Your task to perform on an android device: toggle javascript in the chrome app Image 0: 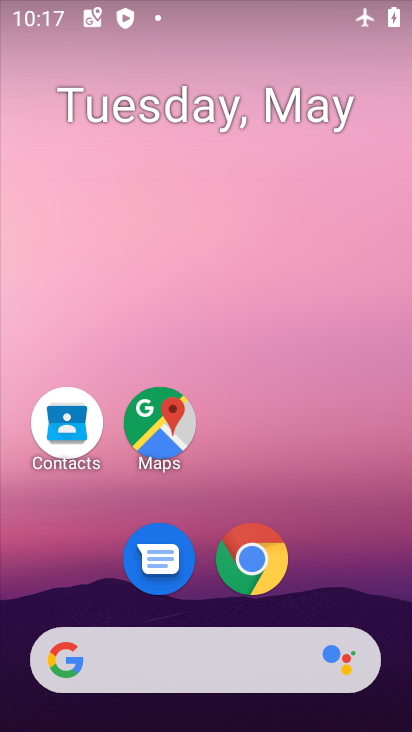
Step 0: click (241, 581)
Your task to perform on an android device: toggle javascript in the chrome app Image 1: 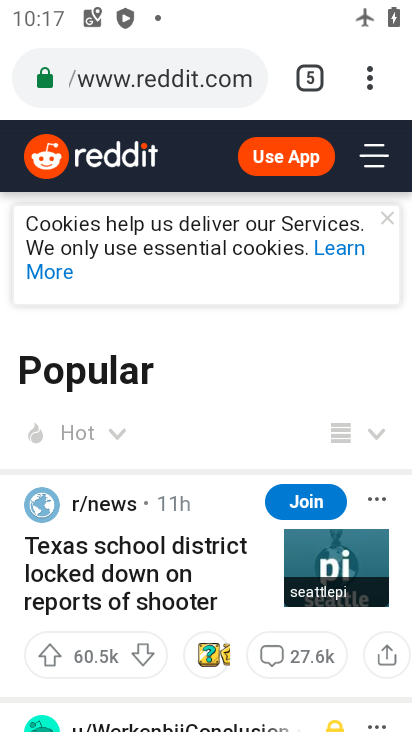
Step 1: click (377, 75)
Your task to perform on an android device: toggle javascript in the chrome app Image 2: 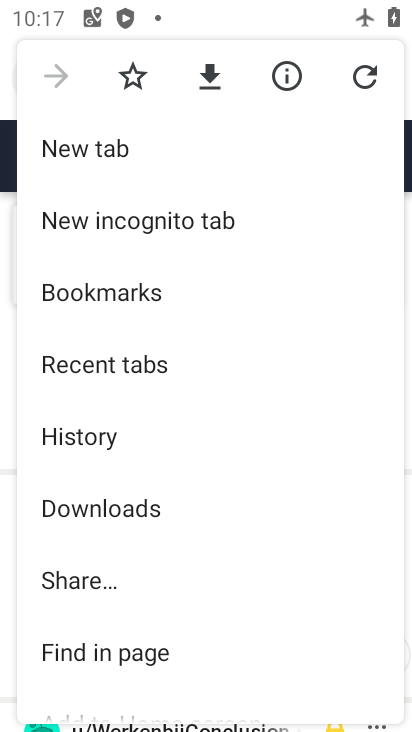
Step 2: drag from (164, 599) to (181, 237)
Your task to perform on an android device: toggle javascript in the chrome app Image 3: 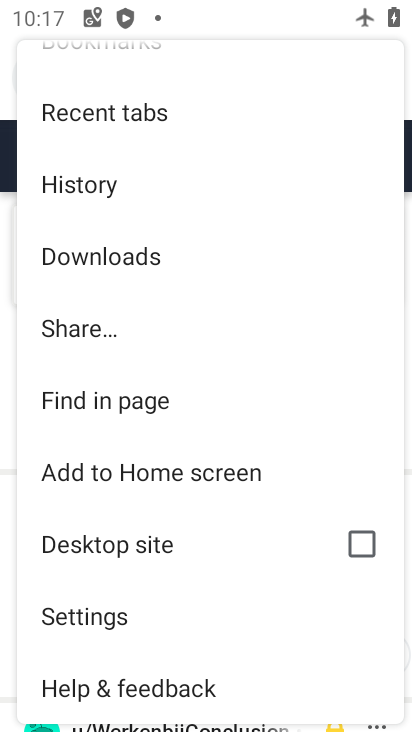
Step 3: click (166, 602)
Your task to perform on an android device: toggle javascript in the chrome app Image 4: 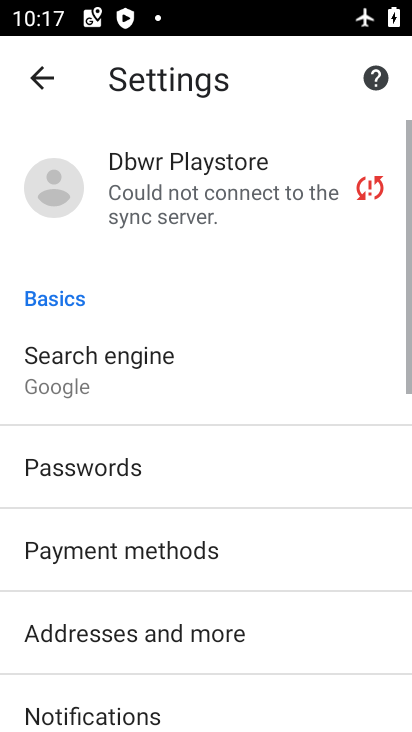
Step 4: drag from (175, 676) to (213, 246)
Your task to perform on an android device: toggle javascript in the chrome app Image 5: 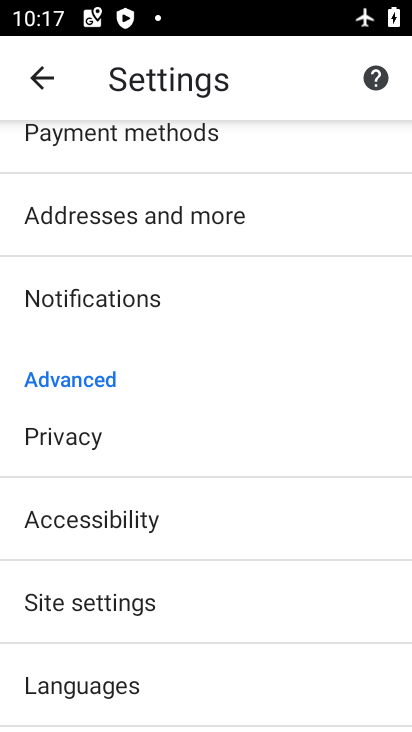
Step 5: click (202, 624)
Your task to perform on an android device: toggle javascript in the chrome app Image 6: 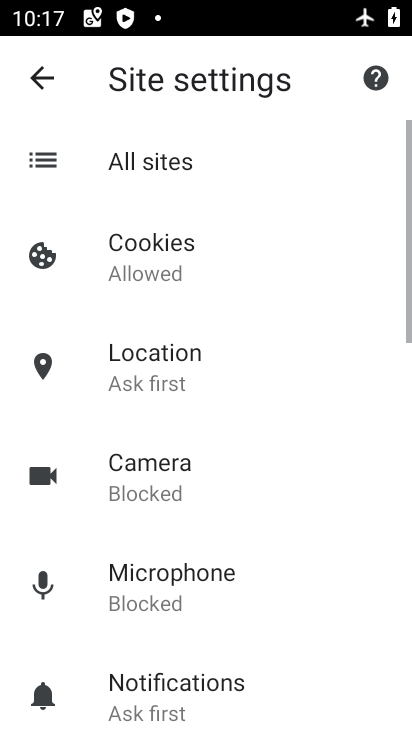
Step 6: drag from (202, 624) to (248, 218)
Your task to perform on an android device: toggle javascript in the chrome app Image 7: 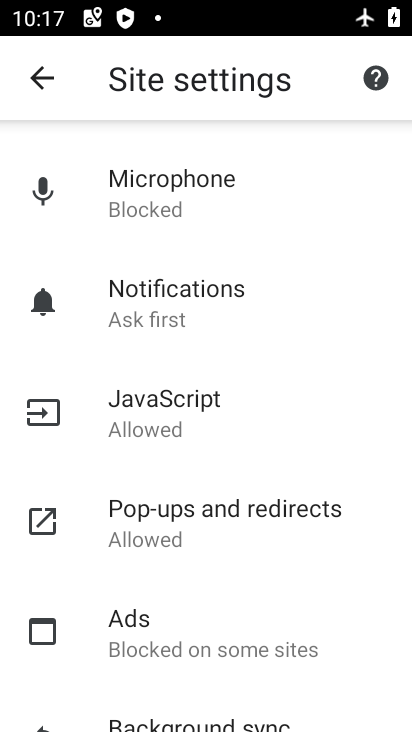
Step 7: click (212, 514)
Your task to perform on an android device: toggle javascript in the chrome app Image 8: 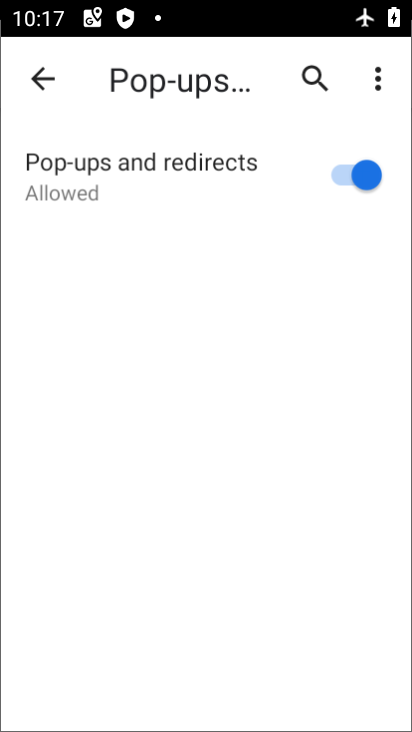
Step 8: click (194, 431)
Your task to perform on an android device: toggle javascript in the chrome app Image 9: 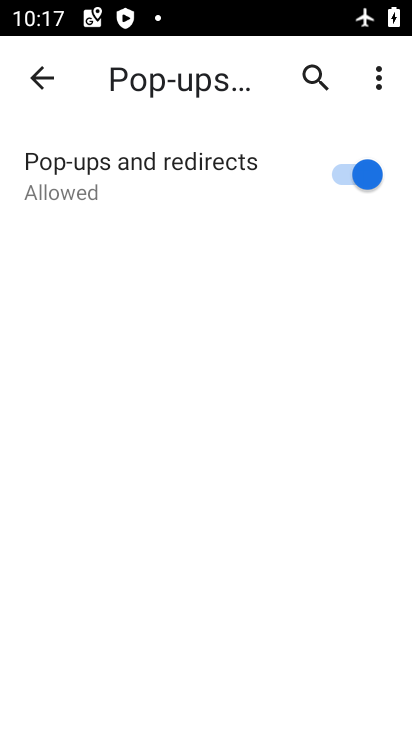
Step 9: task complete